Your task to perform on an android device: turn on location history Image 0: 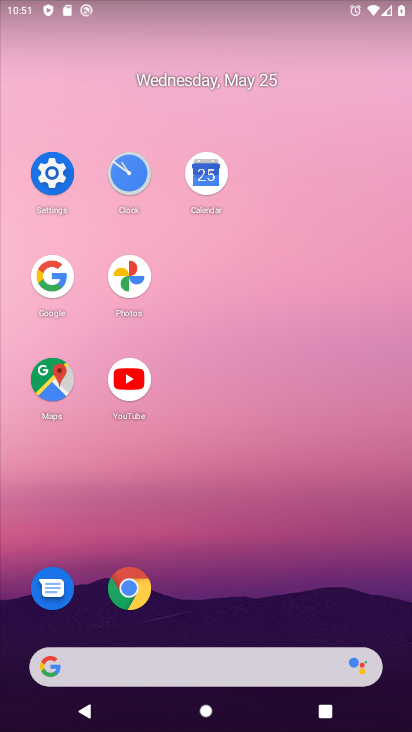
Step 0: click (215, 16)
Your task to perform on an android device: turn on location history Image 1: 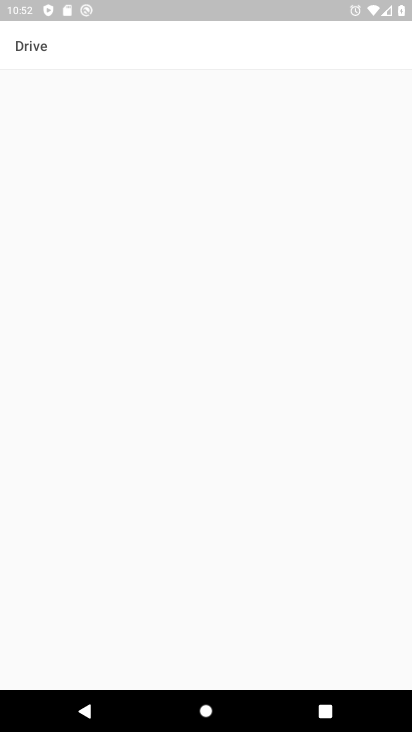
Step 1: press home button
Your task to perform on an android device: turn on location history Image 2: 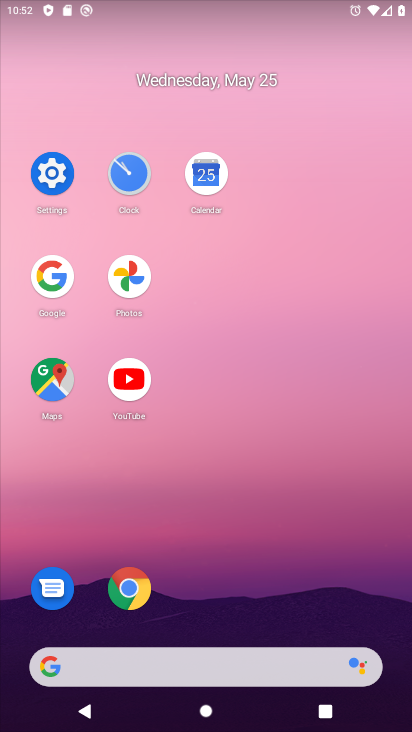
Step 2: click (64, 163)
Your task to perform on an android device: turn on location history Image 3: 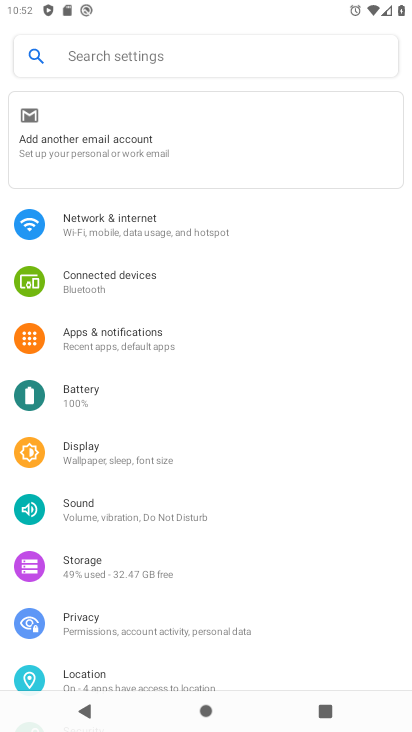
Step 3: click (141, 680)
Your task to perform on an android device: turn on location history Image 4: 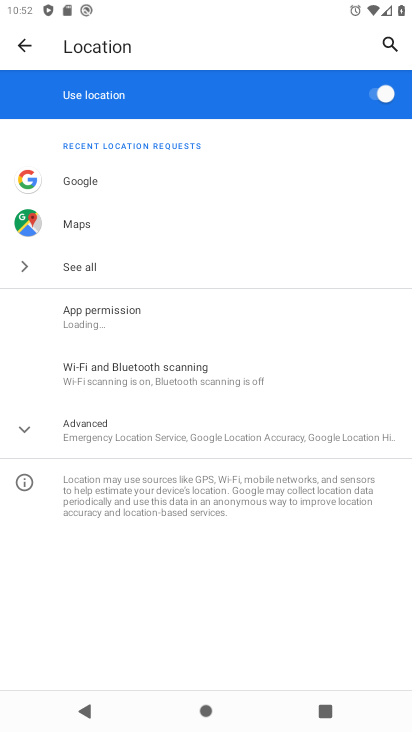
Step 4: click (170, 429)
Your task to perform on an android device: turn on location history Image 5: 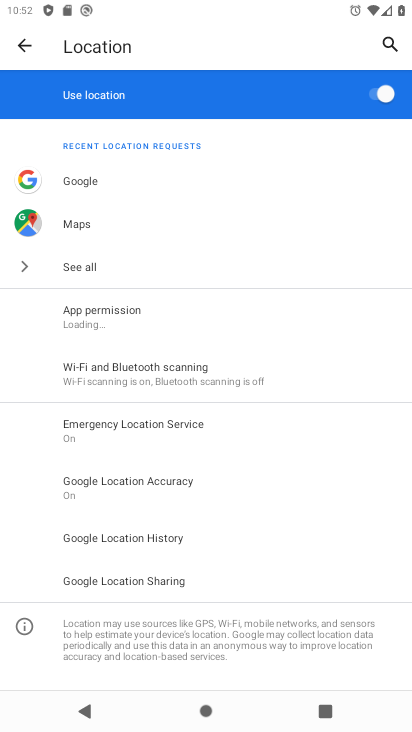
Step 5: drag from (171, 429) to (113, 199)
Your task to perform on an android device: turn on location history Image 6: 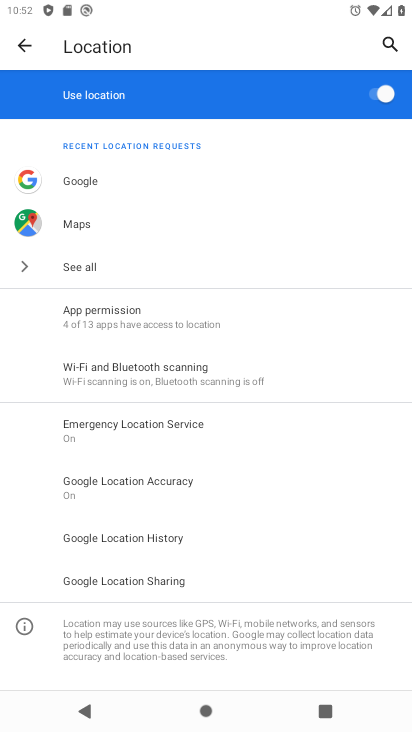
Step 6: click (192, 548)
Your task to perform on an android device: turn on location history Image 7: 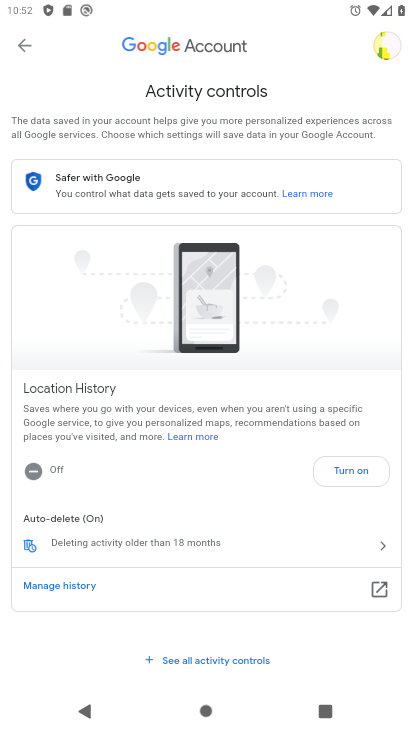
Step 7: drag from (292, 534) to (213, 39)
Your task to perform on an android device: turn on location history Image 8: 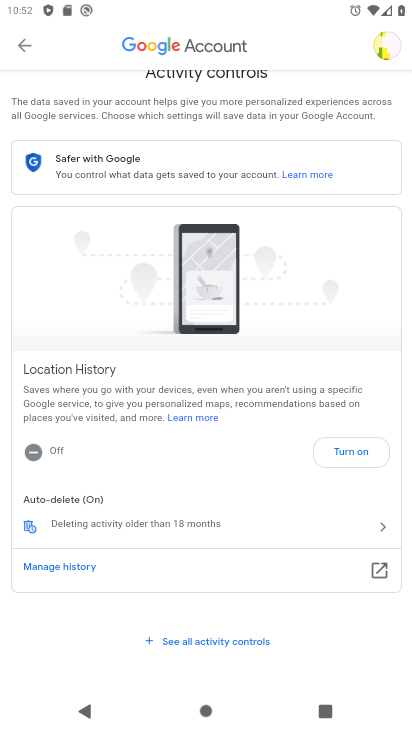
Step 8: click (358, 456)
Your task to perform on an android device: turn on location history Image 9: 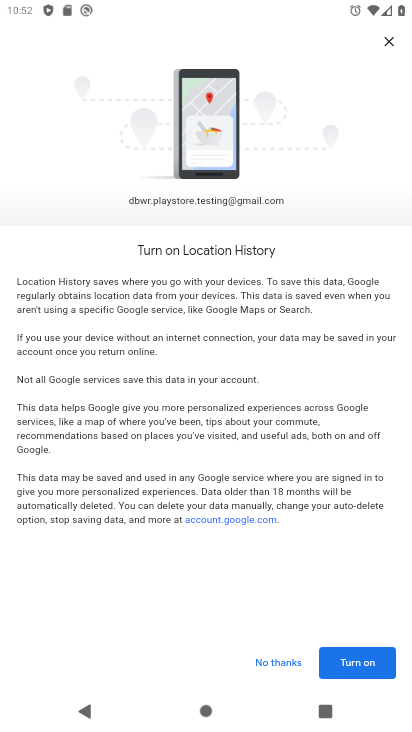
Step 9: click (393, 654)
Your task to perform on an android device: turn on location history Image 10: 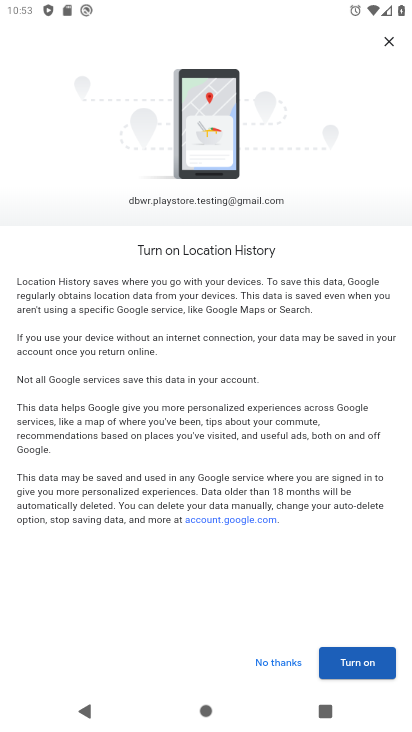
Step 10: click (375, 656)
Your task to perform on an android device: turn on location history Image 11: 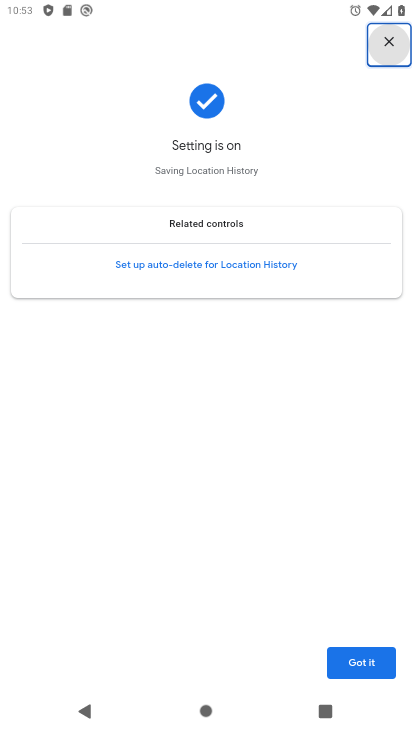
Step 11: click (380, 669)
Your task to perform on an android device: turn on location history Image 12: 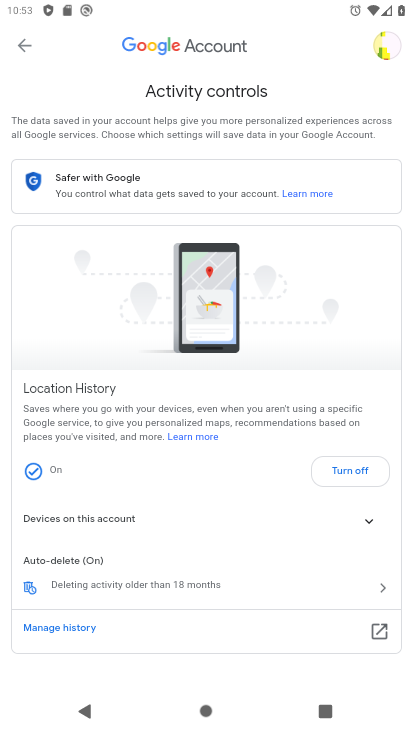
Step 12: task complete